Your task to perform on an android device: check the backup settings in the google photos Image 0: 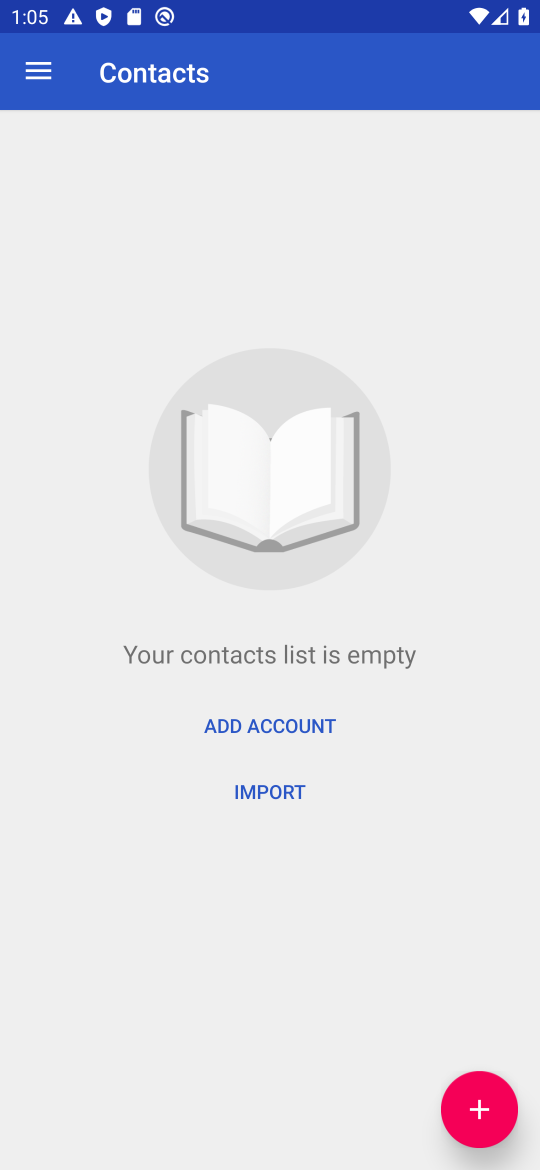
Step 0: press home button
Your task to perform on an android device: check the backup settings in the google photos Image 1: 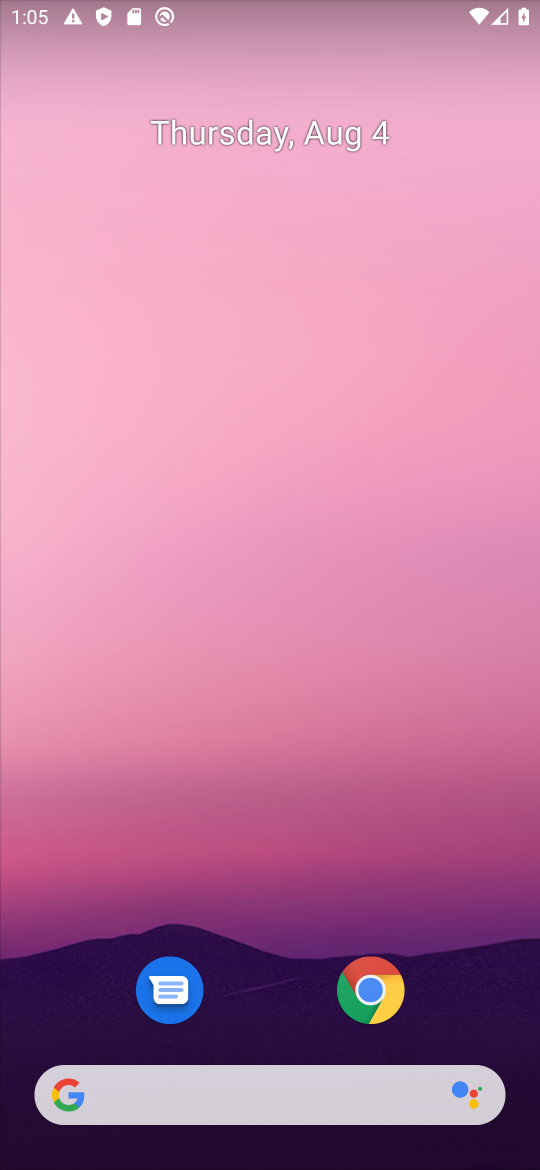
Step 1: drag from (308, 1011) to (15, 261)
Your task to perform on an android device: check the backup settings in the google photos Image 2: 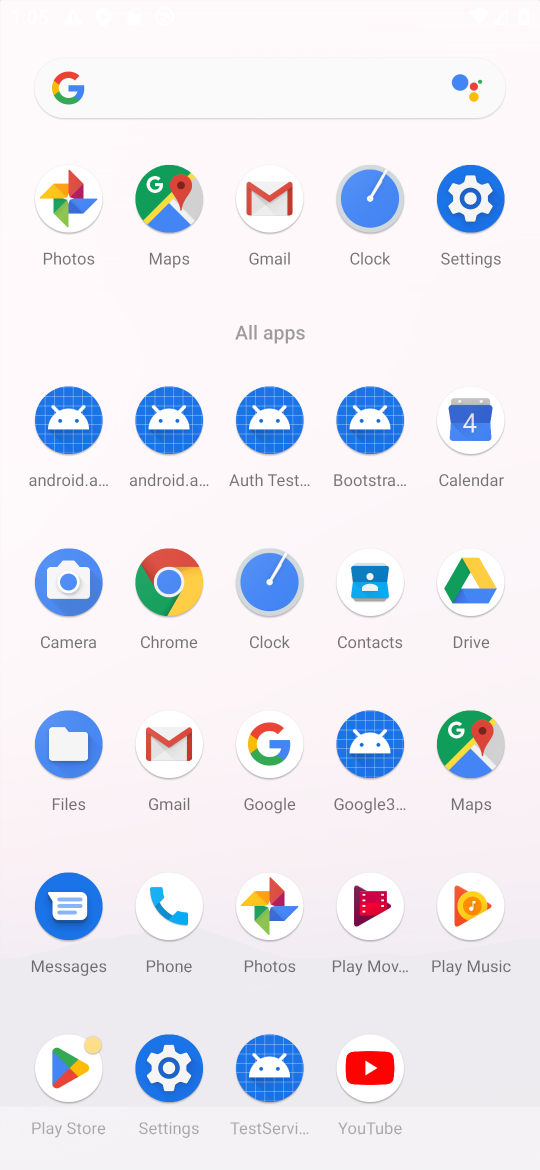
Step 2: click (288, 935)
Your task to perform on an android device: check the backup settings in the google photos Image 3: 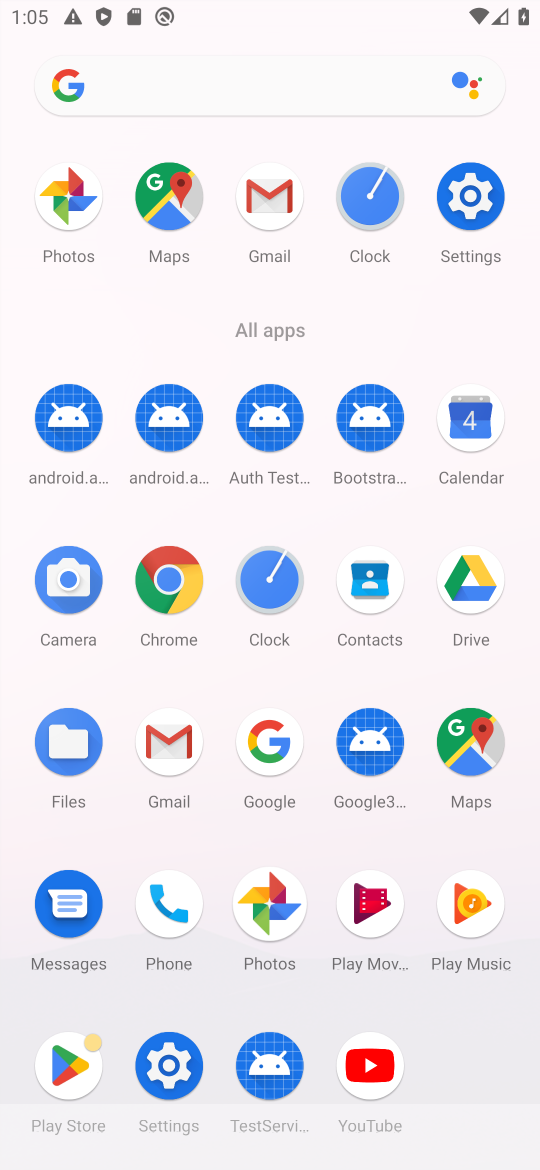
Step 3: task complete